Your task to perform on an android device: Show the shopping cart on walmart.com. Image 0: 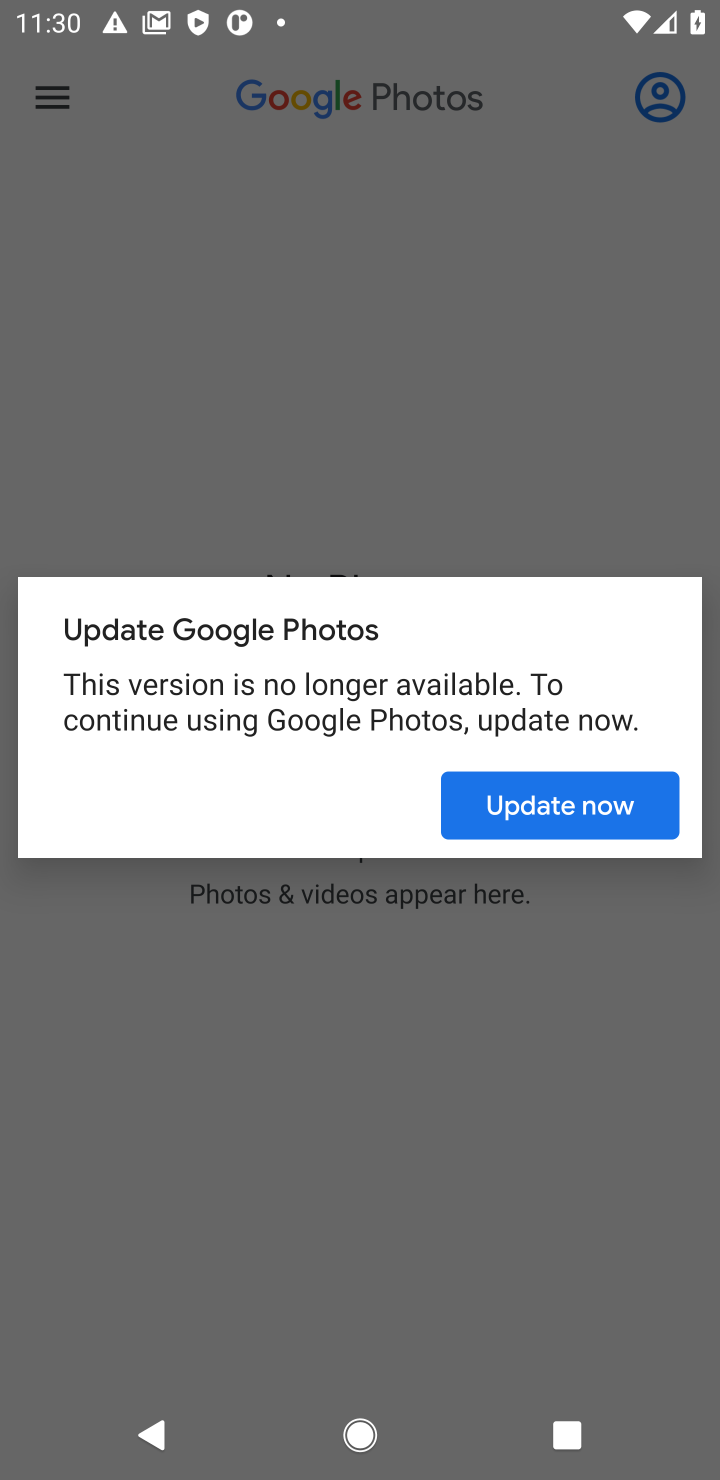
Step 0: press home button
Your task to perform on an android device: Show the shopping cart on walmart.com. Image 1: 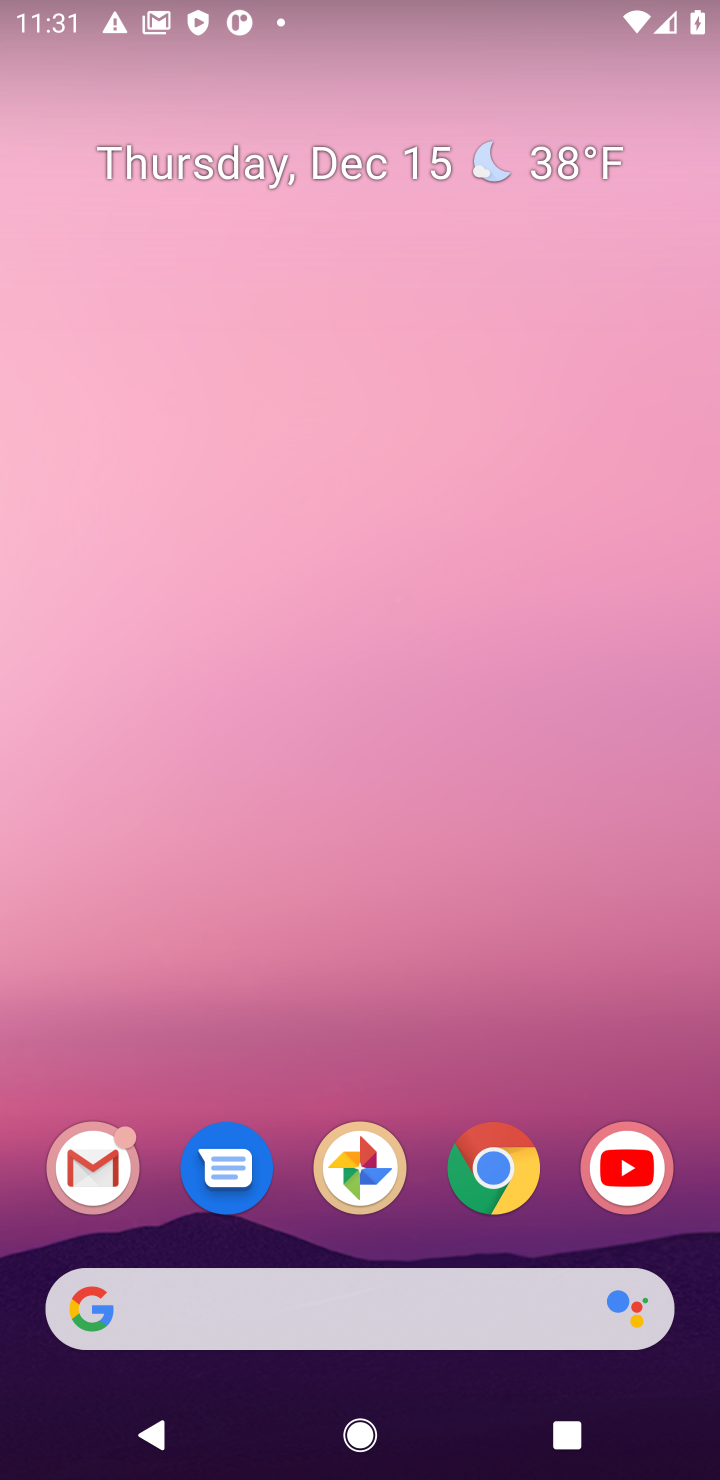
Step 1: click (495, 1174)
Your task to perform on an android device: Show the shopping cart on walmart.com. Image 2: 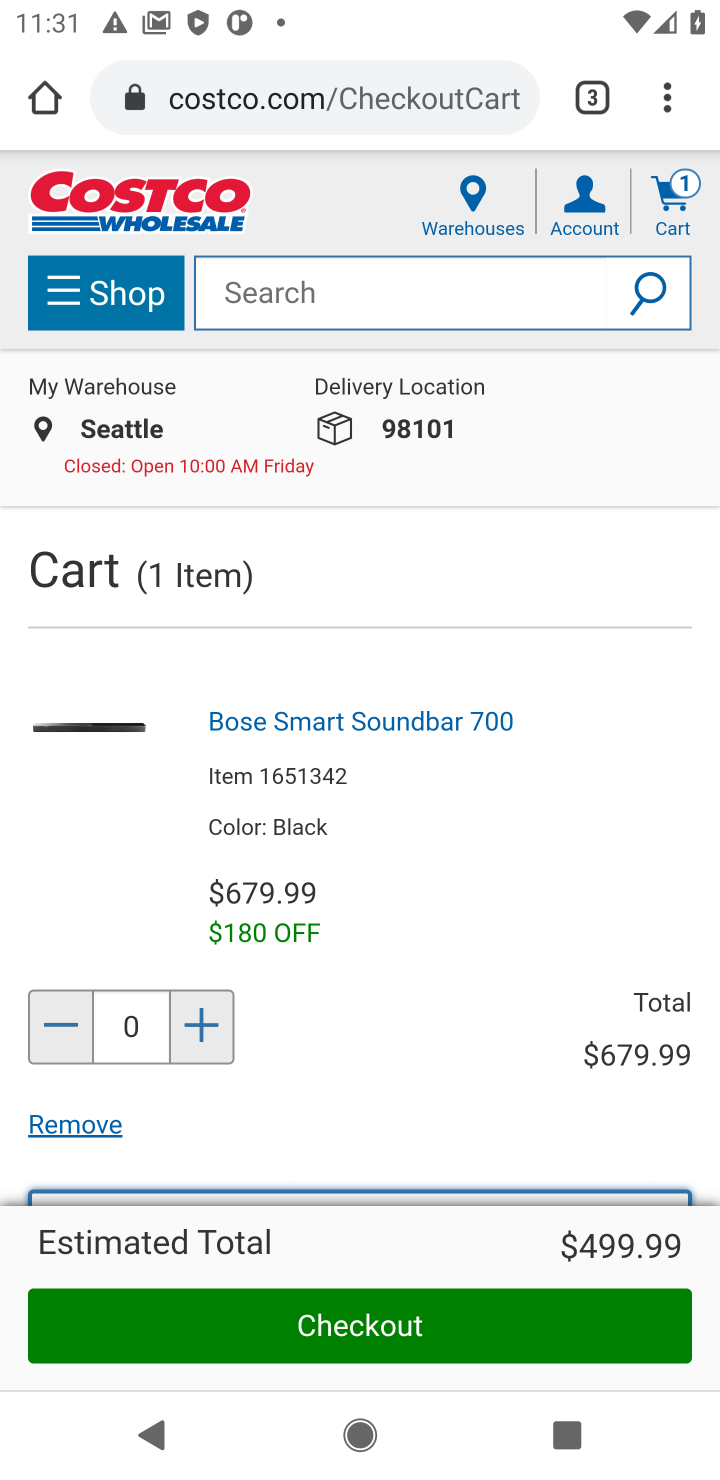
Step 2: click (287, 79)
Your task to perform on an android device: Show the shopping cart on walmart.com. Image 3: 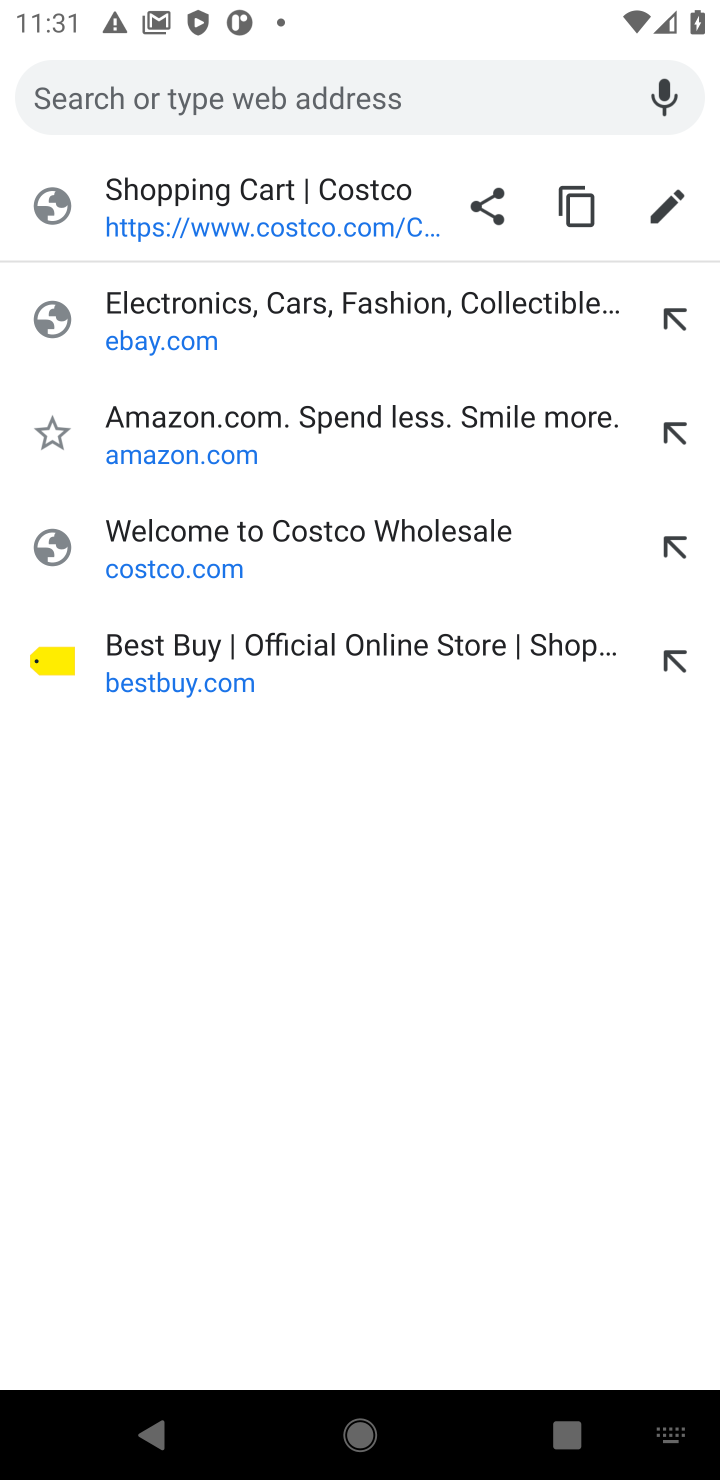
Step 3: type "walmart"
Your task to perform on an android device: Show the shopping cart on walmart.com. Image 4: 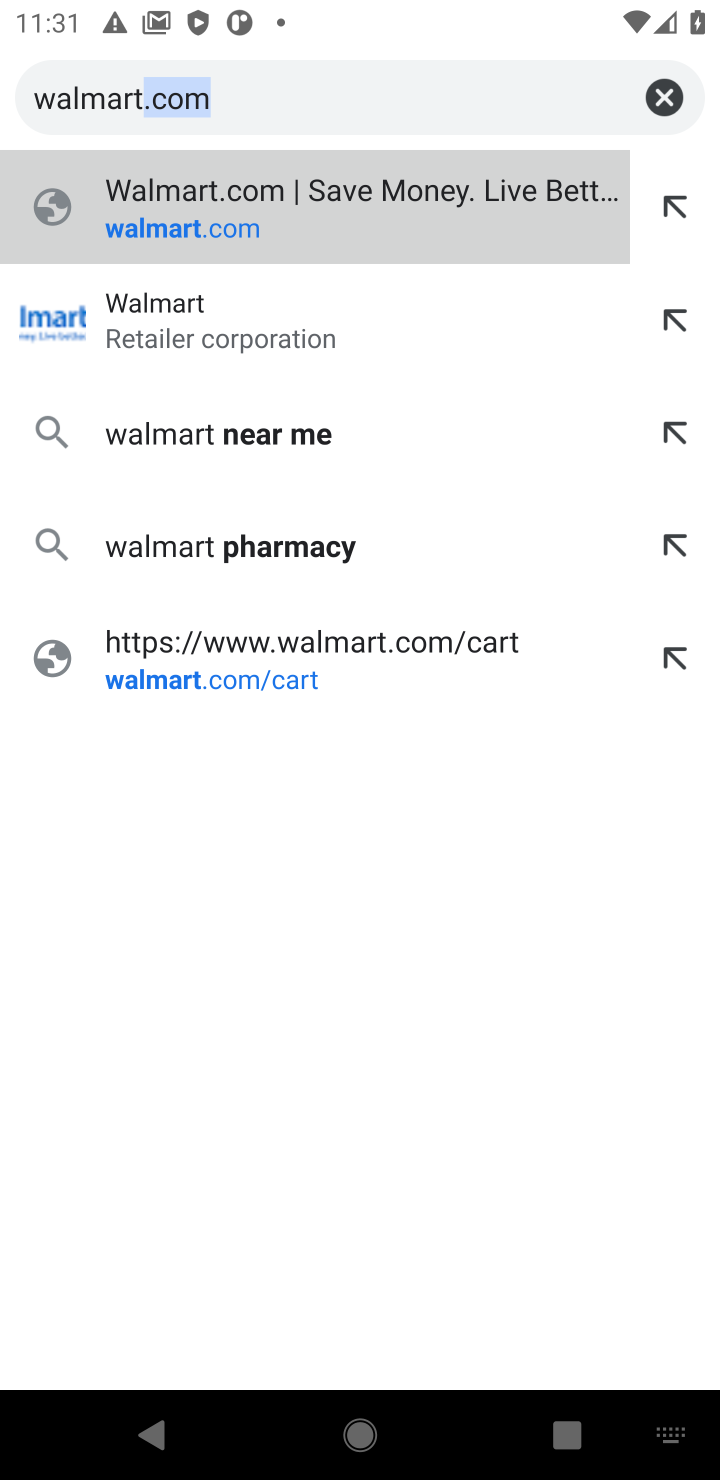
Step 4: click (224, 219)
Your task to perform on an android device: Show the shopping cart on walmart.com. Image 5: 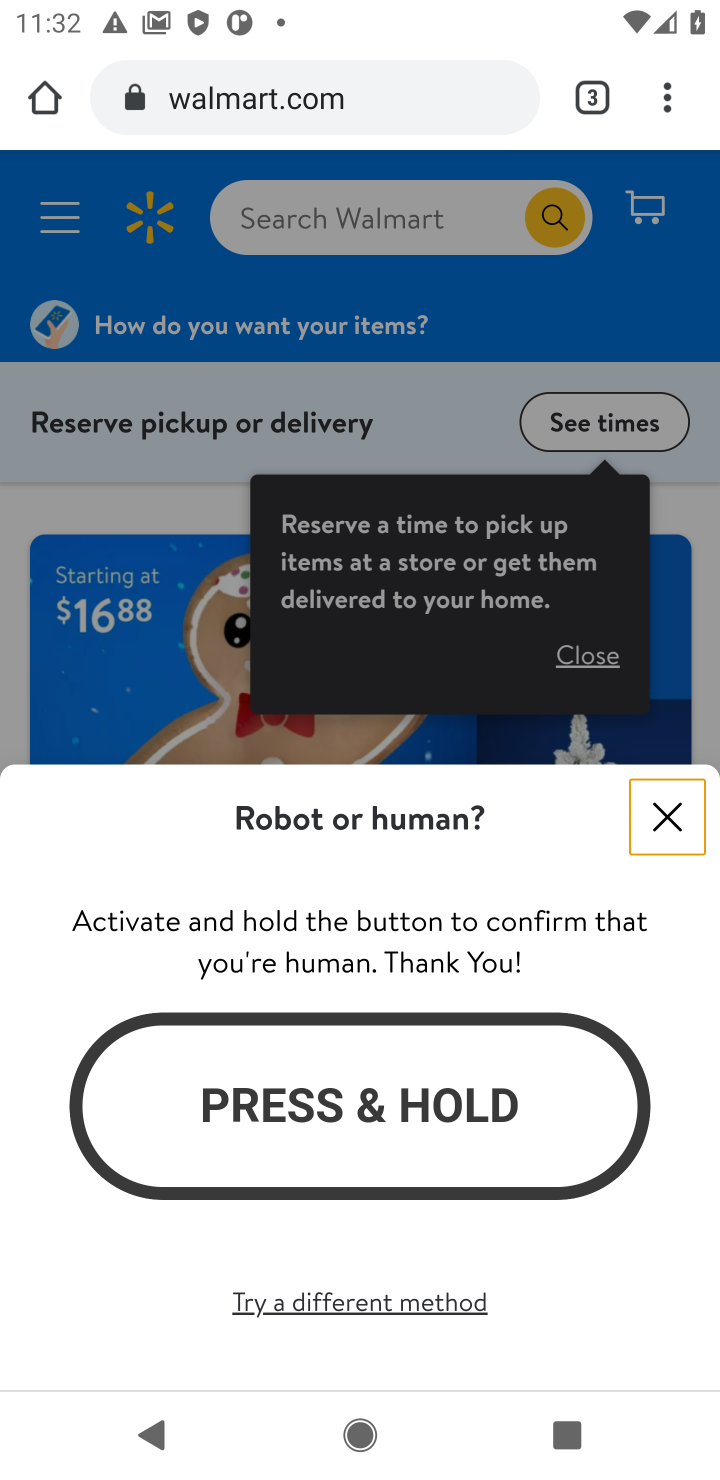
Step 5: click (672, 821)
Your task to perform on an android device: Show the shopping cart on walmart.com. Image 6: 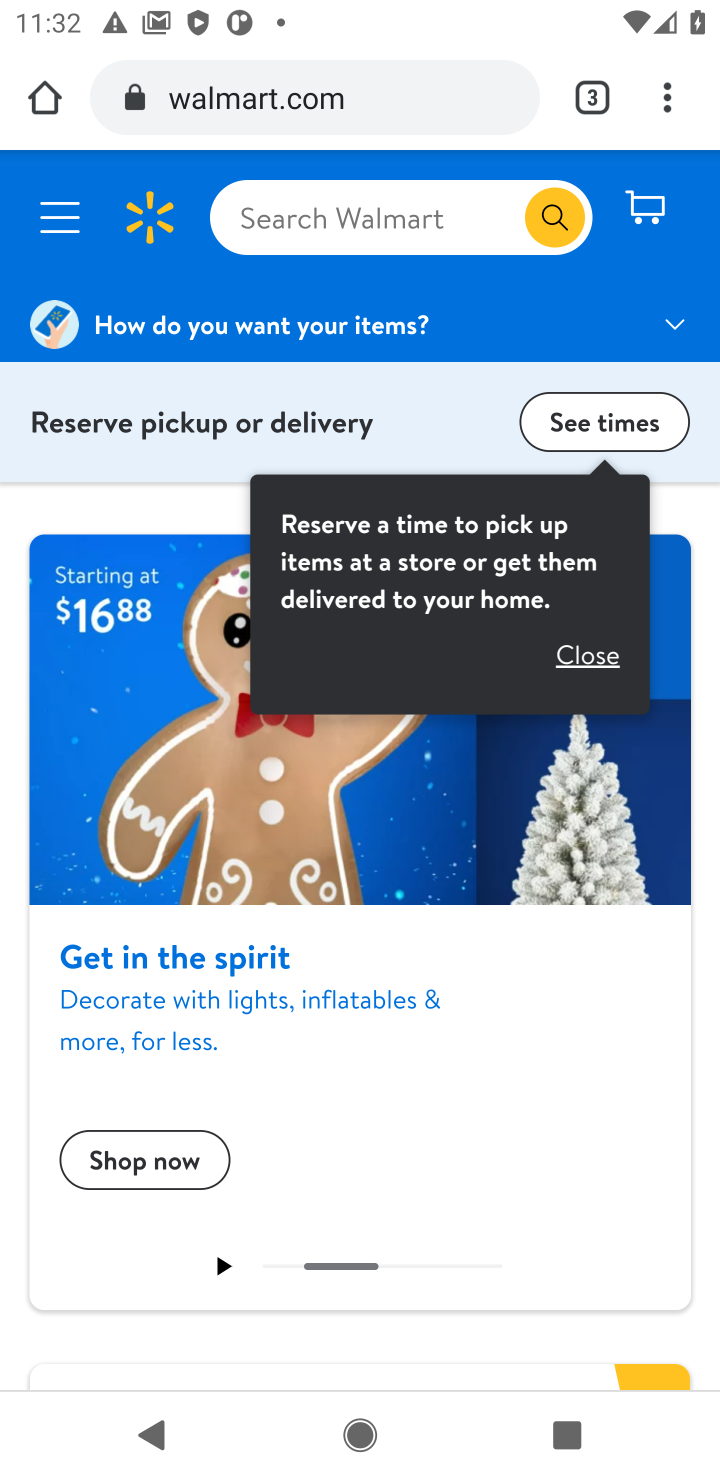
Step 6: task complete